Your task to perform on an android device: install app "Google Translate" Image 0: 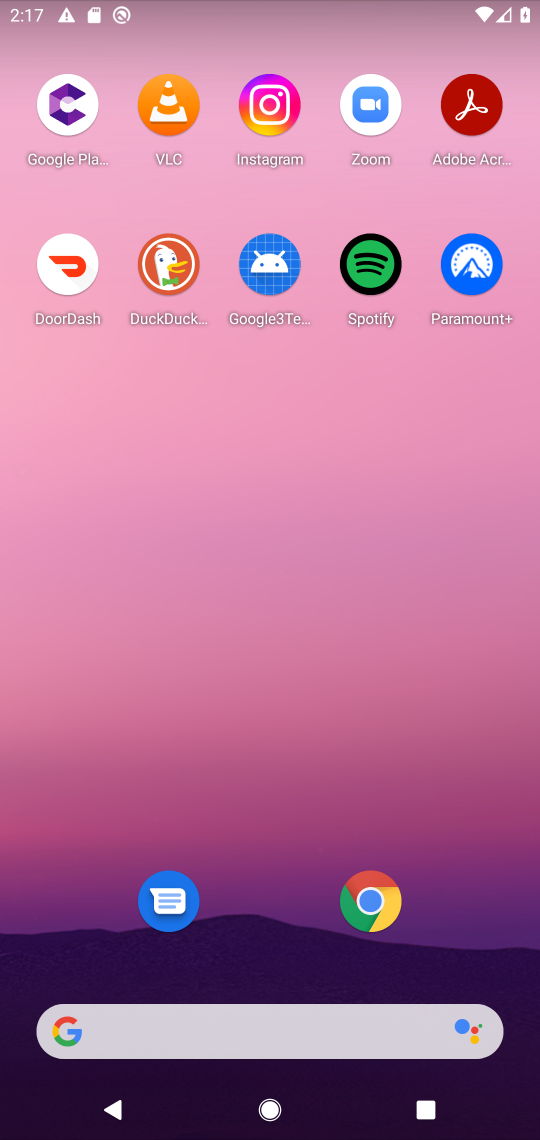
Step 0: drag from (475, 973) to (427, 49)
Your task to perform on an android device: install app "Google Translate" Image 1: 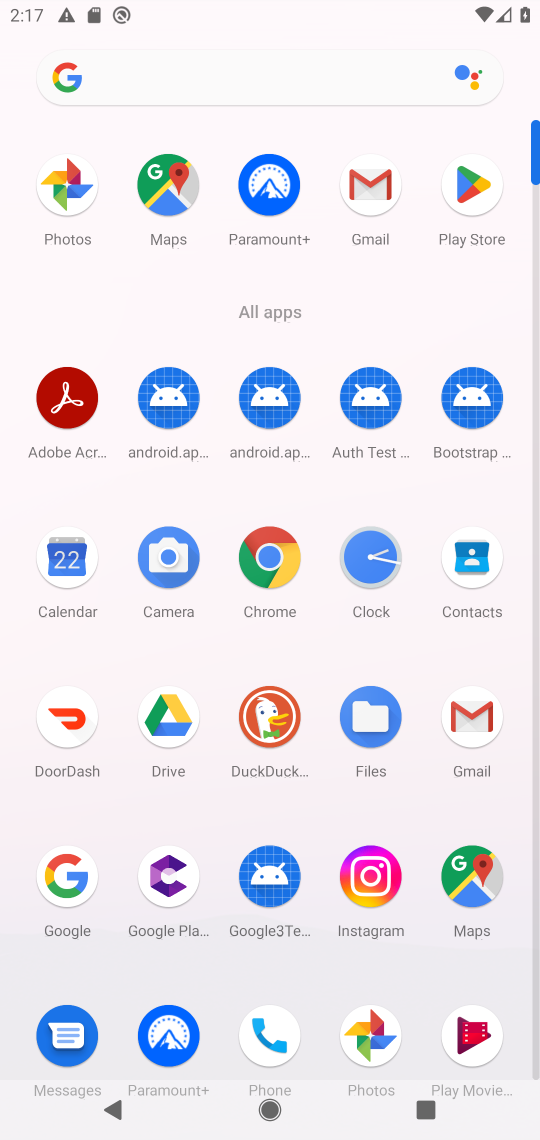
Step 1: drag from (211, 958) to (238, 451)
Your task to perform on an android device: install app "Google Translate" Image 2: 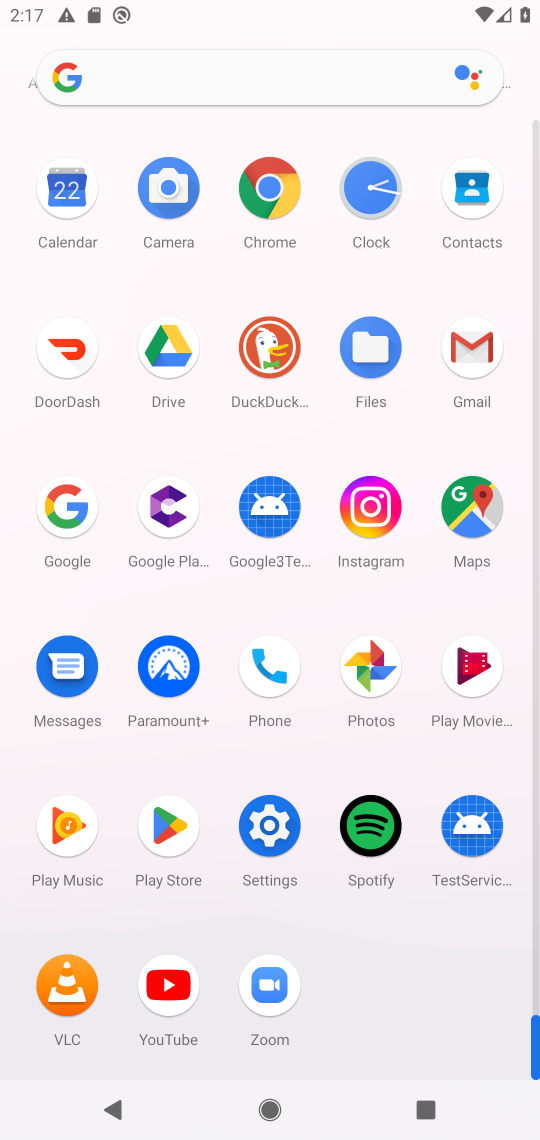
Step 2: click (165, 823)
Your task to perform on an android device: install app "Google Translate" Image 3: 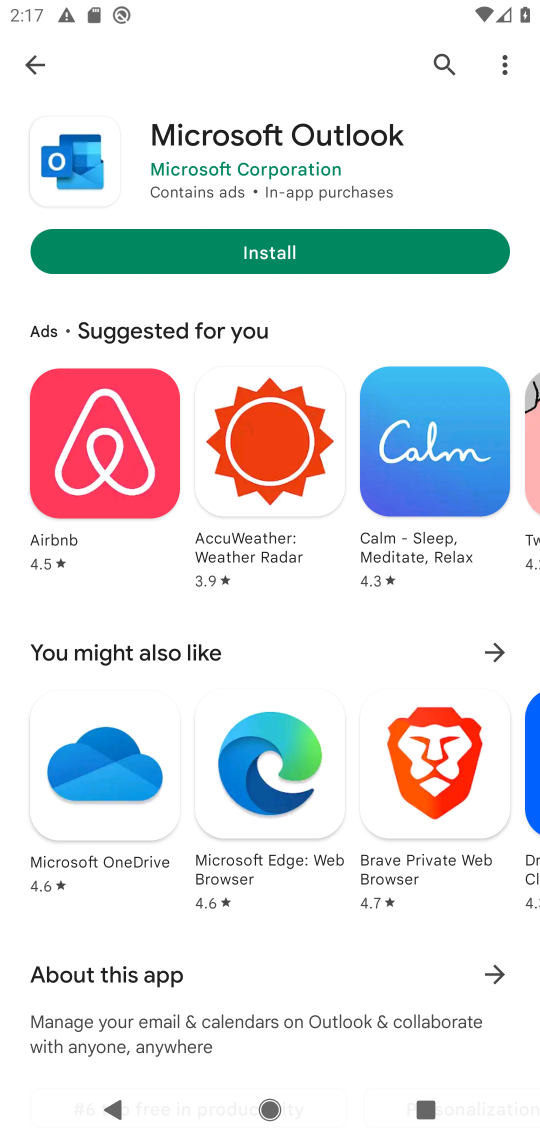
Step 3: click (437, 59)
Your task to perform on an android device: install app "Google Translate" Image 4: 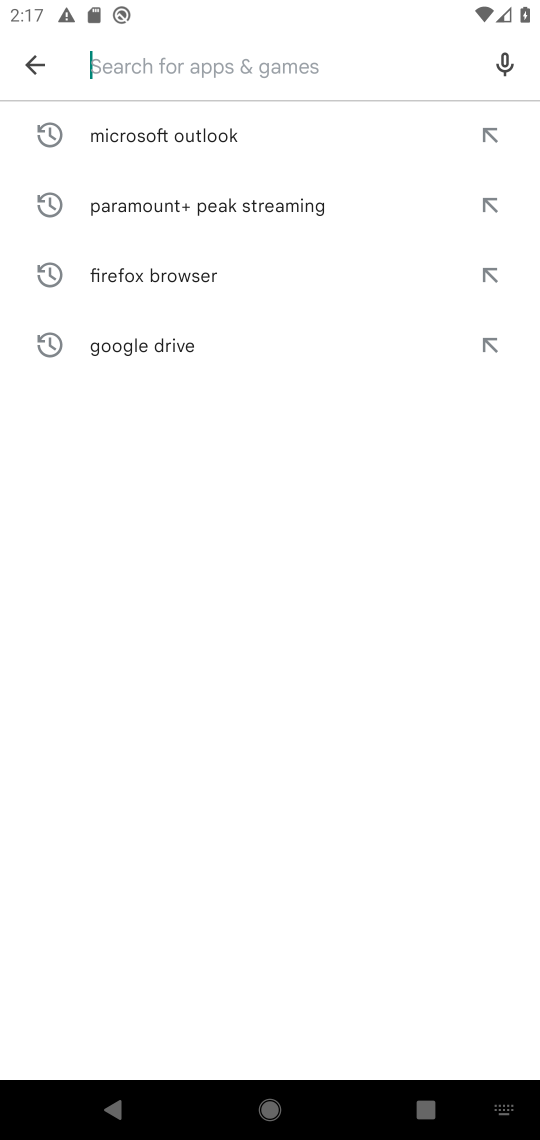
Step 4: type "google translate"
Your task to perform on an android device: install app "Google Translate" Image 5: 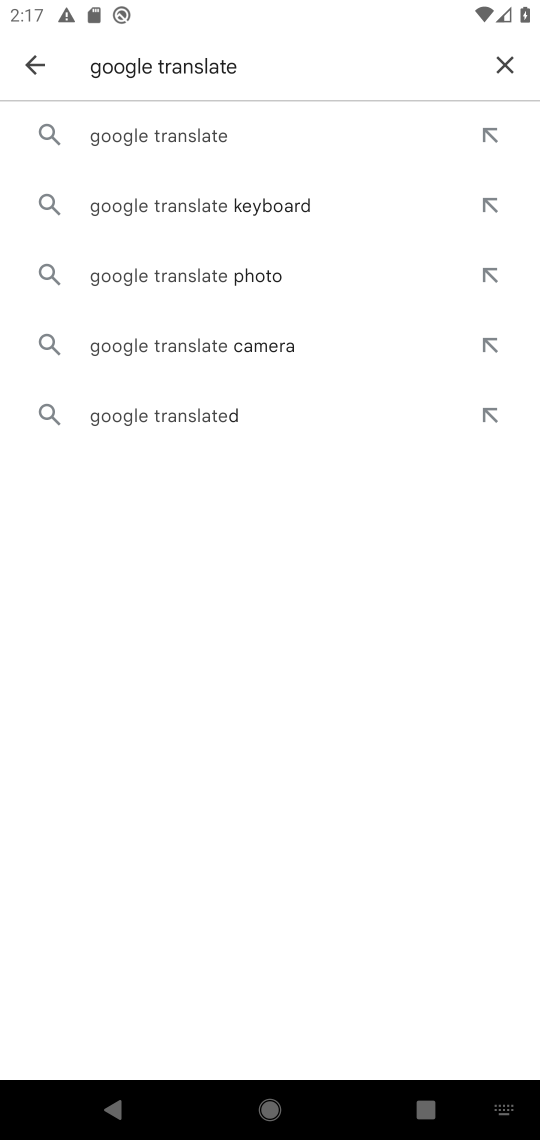
Step 5: click (175, 135)
Your task to perform on an android device: install app "Google Translate" Image 6: 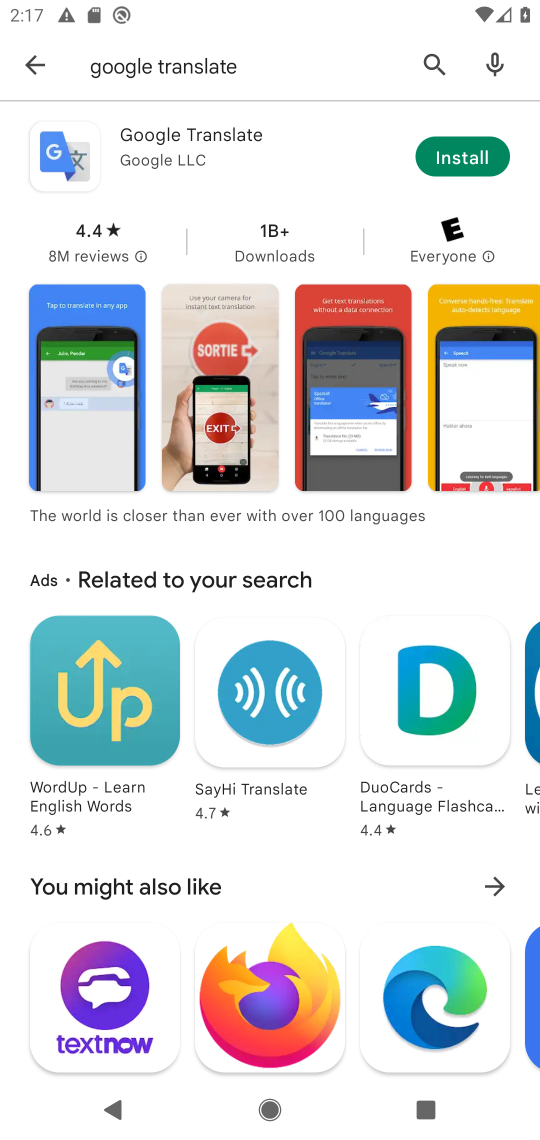
Step 6: click (179, 133)
Your task to perform on an android device: install app "Google Translate" Image 7: 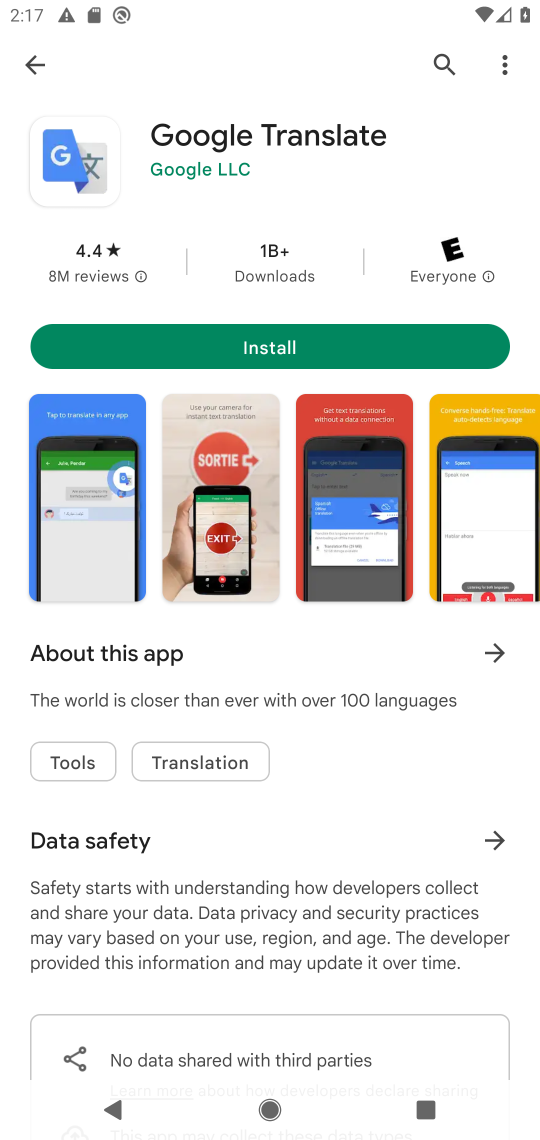
Step 7: click (279, 348)
Your task to perform on an android device: install app "Google Translate" Image 8: 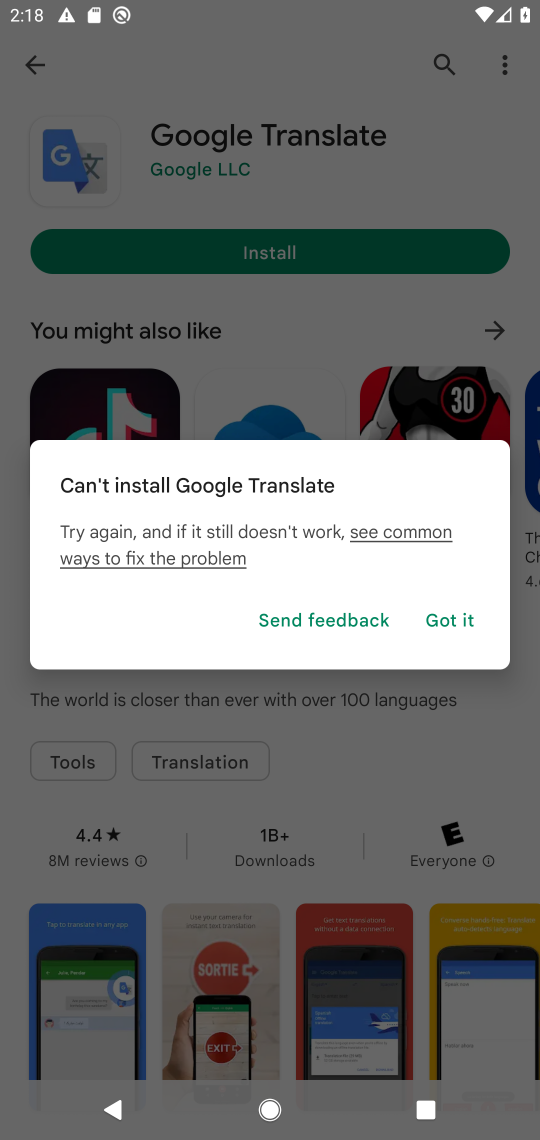
Step 8: click (446, 614)
Your task to perform on an android device: install app "Google Translate" Image 9: 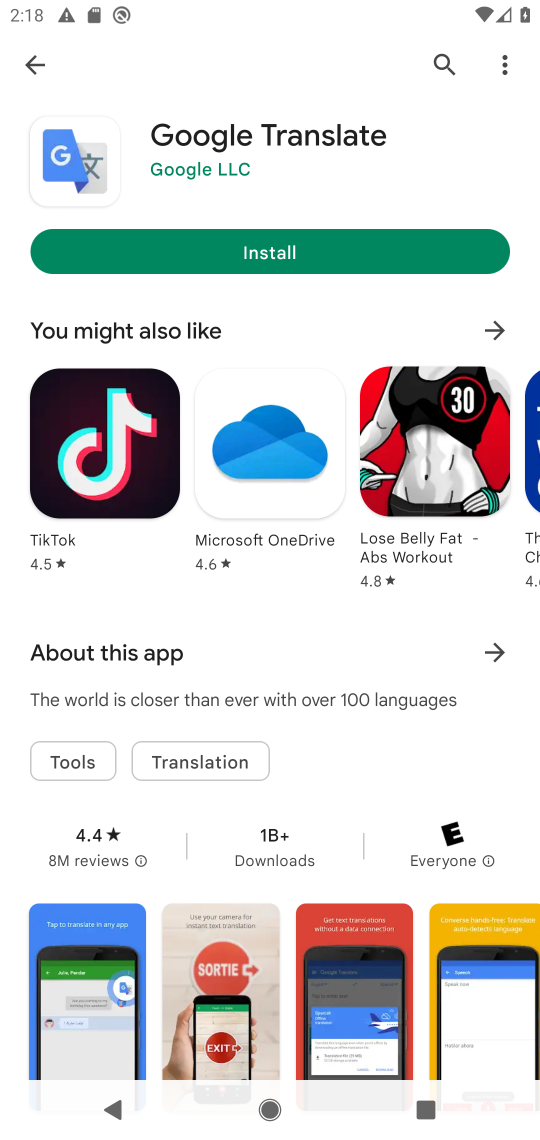
Step 9: click (257, 246)
Your task to perform on an android device: install app "Google Translate" Image 10: 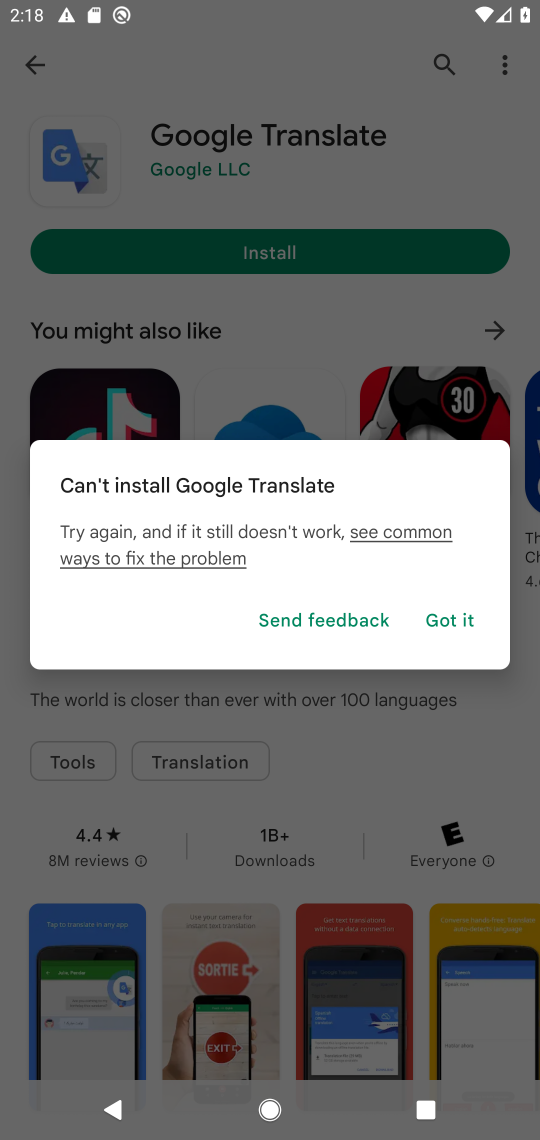
Step 10: click (439, 613)
Your task to perform on an android device: install app "Google Translate" Image 11: 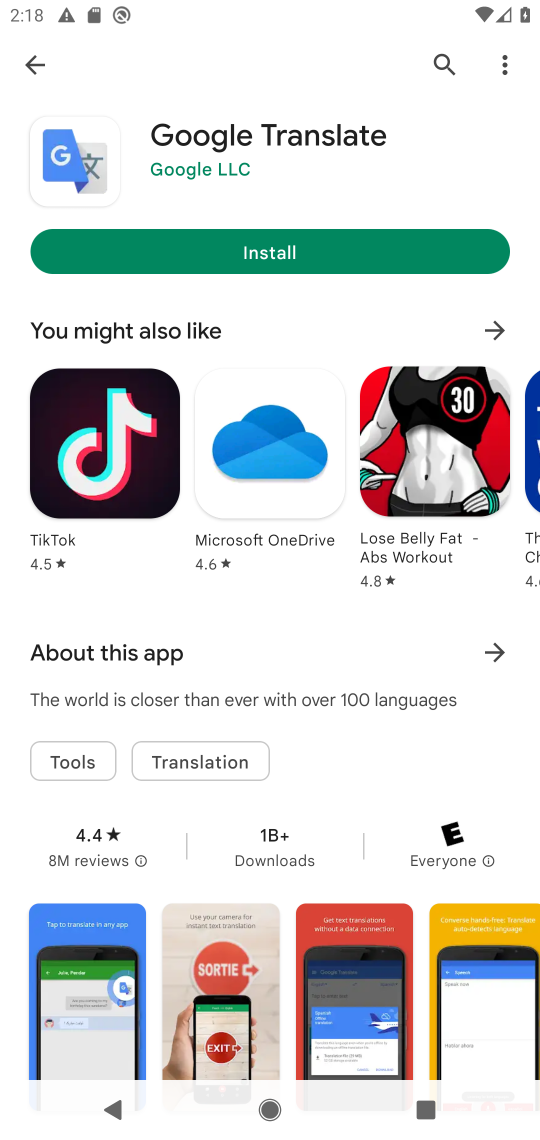
Step 11: task complete